Your task to perform on an android device: turn on notifications settings in the gmail app Image 0: 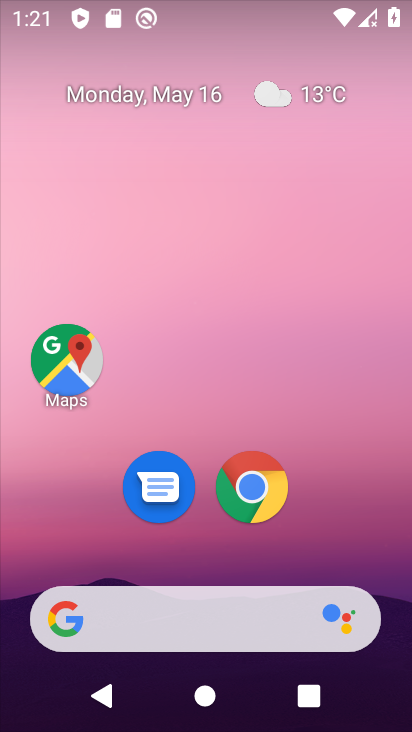
Step 0: drag from (377, 395) to (356, 264)
Your task to perform on an android device: turn on notifications settings in the gmail app Image 1: 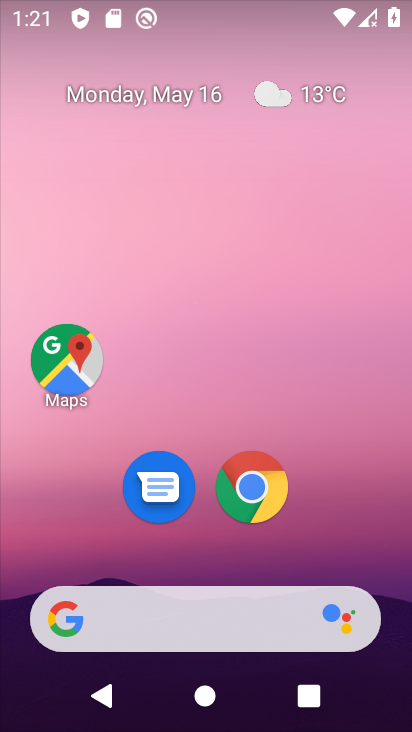
Step 1: drag from (391, 380) to (367, 154)
Your task to perform on an android device: turn on notifications settings in the gmail app Image 2: 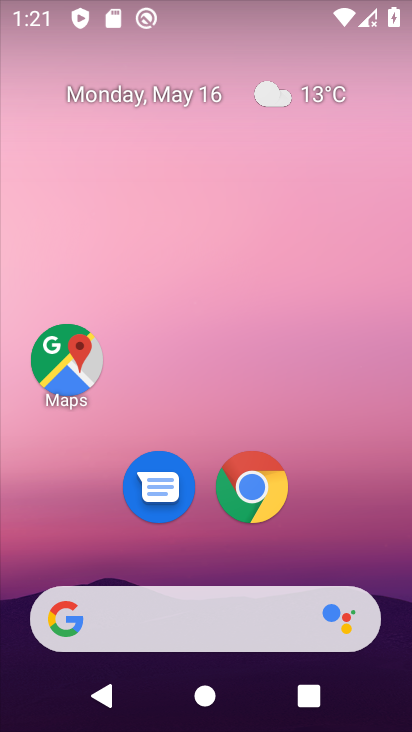
Step 2: drag from (403, 345) to (405, 207)
Your task to perform on an android device: turn on notifications settings in the gmail app Image 3: 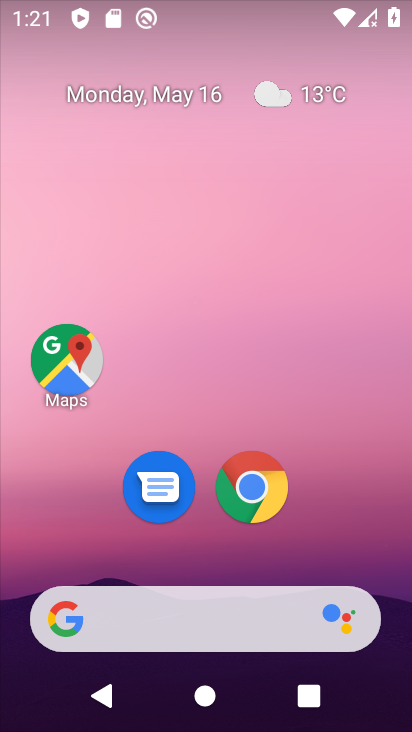
Step 3: drag from (402, 585) to (380, 314)
Your task to perform on an android device: turn on notifications settings in the gmail app Image 4: 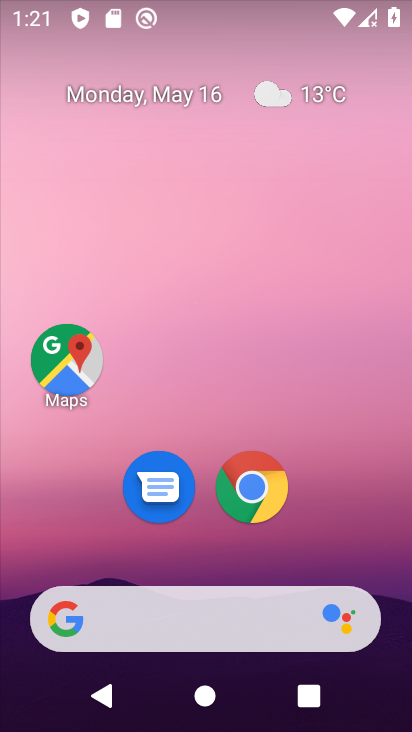
Step 4: drag from (408, 644) to (408, 243)
Your task to perform on an android device: turn on notifications settings in the gmail app Image 5: 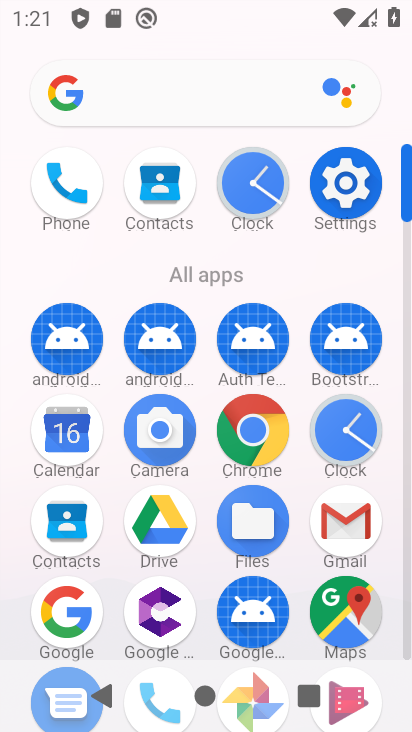
Step 5: click (345, 511)
Your task to perform on an android device: turn on notifications settings in the gmail app Image 6: 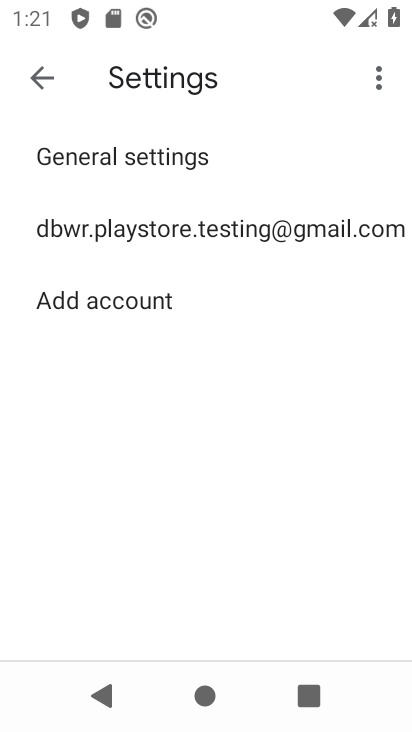
Step 6: click (74, 161)
Your task to perform on an android device: turn on notifications settings in the gmail app Image 7: 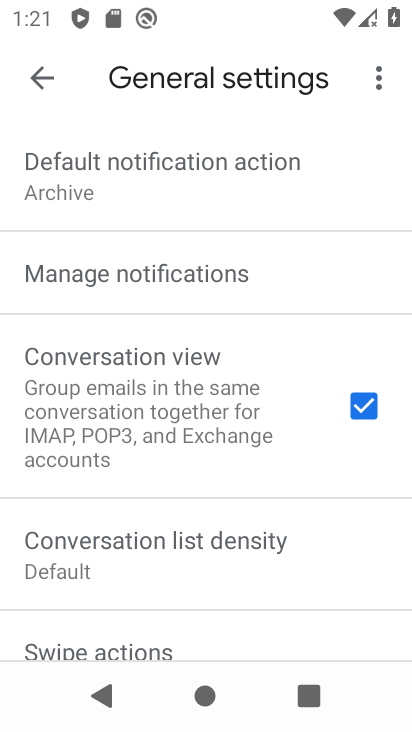
Step 7: click (184, 273)
Your task to perform on an android device: turn on notifications settings in the gmail app Image 8: 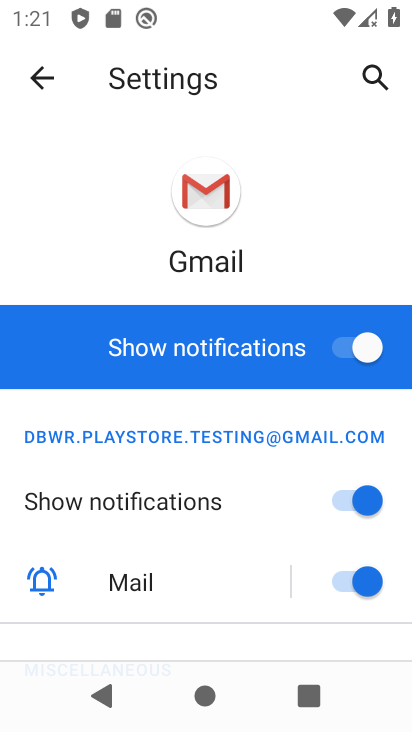
Step 8: task complete